Your task to perform on an android device: Check the weather Image 0: 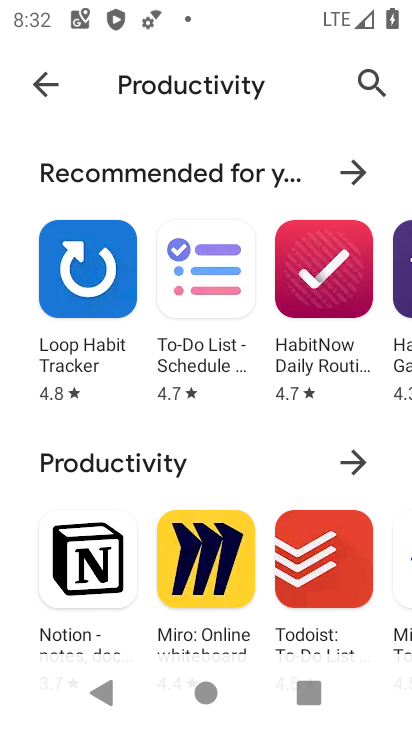
Step 0: press home button
Your task to perform on an android device: Check the weather Image 1: 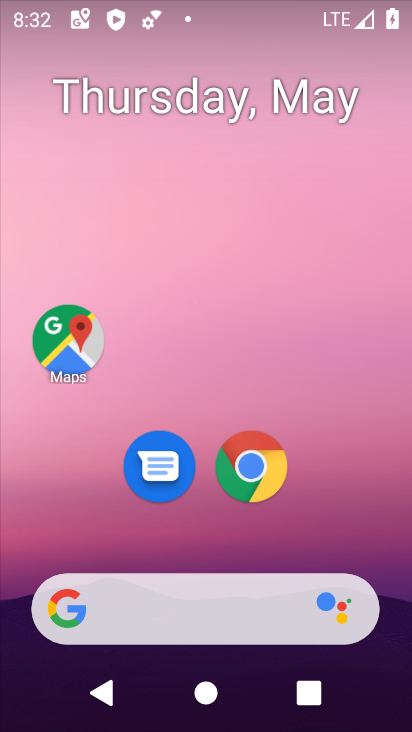
Step 1: click (114, 613)
Your task to perform on an android device: Check the weather Image 2: 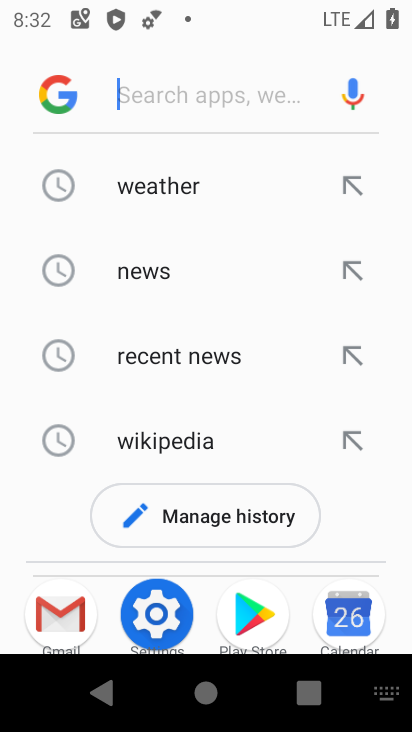
Step 2: click (127, 191)
Your task to perform on an android device: Check the weather Image 3: 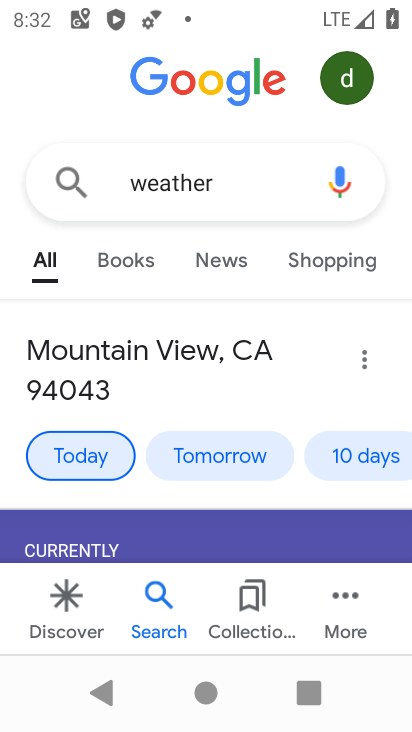
Step 3: task complete